Your task to perform on an android device: open app "Life360: Find Family & Friends" Image 0: 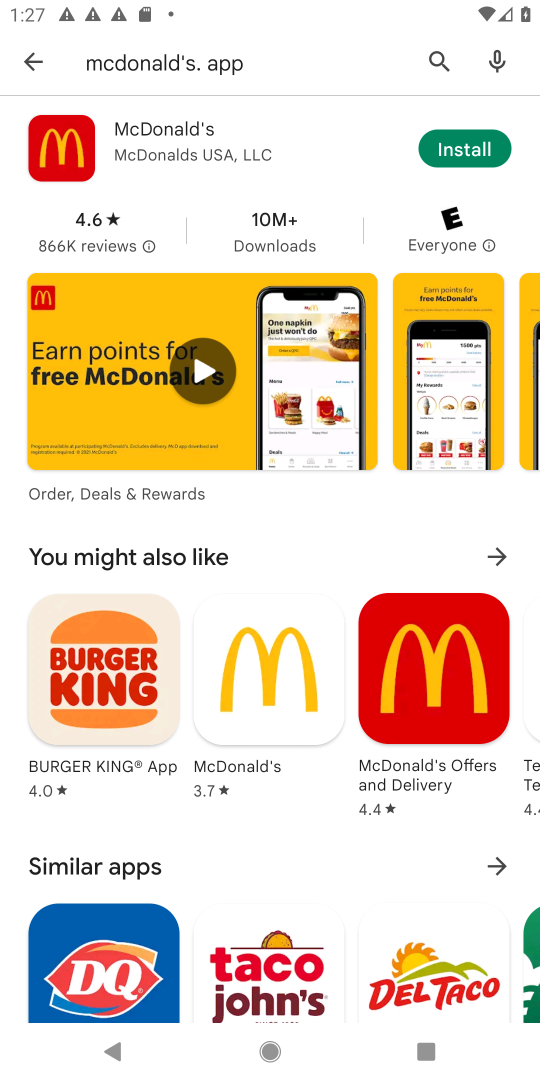
Step 0: press home button
Your task to perform on an android device: open app "Life360: Find Family & Friends" Image 1: 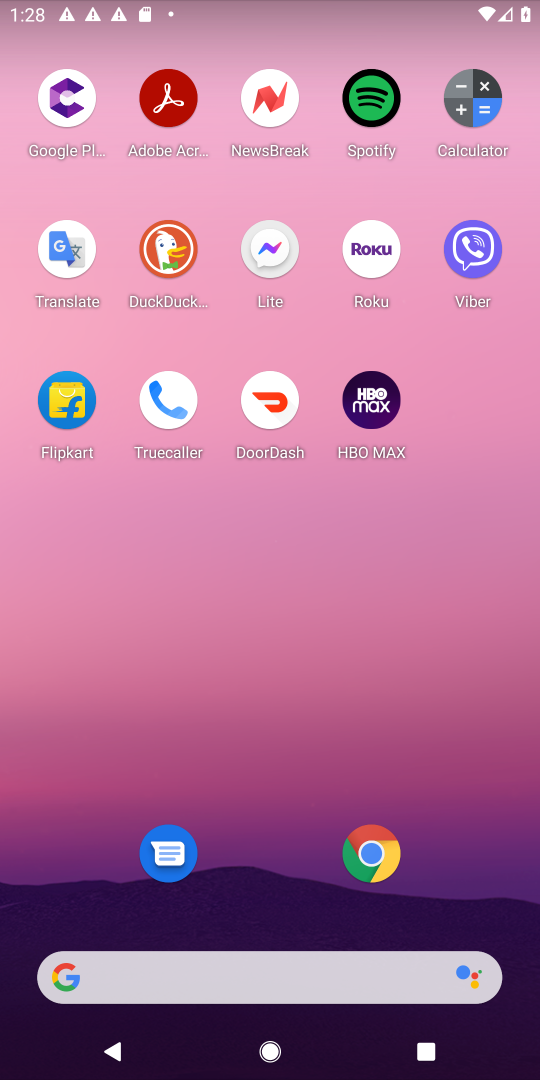
Step 1: drag from (355, 727) to (440, 251)
Your task to perform on an android device: open app "Life360: Find Family & Friends" Image 2: 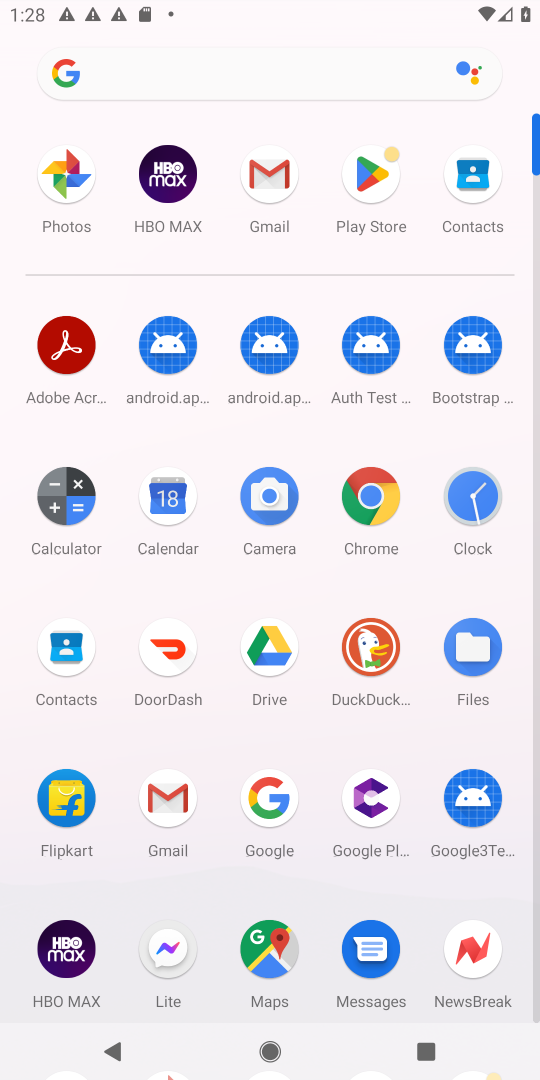
Step 2: click (388, 201)
Your task to perform on an android device: open app "Life360: Find Family & Friends" Image 3: 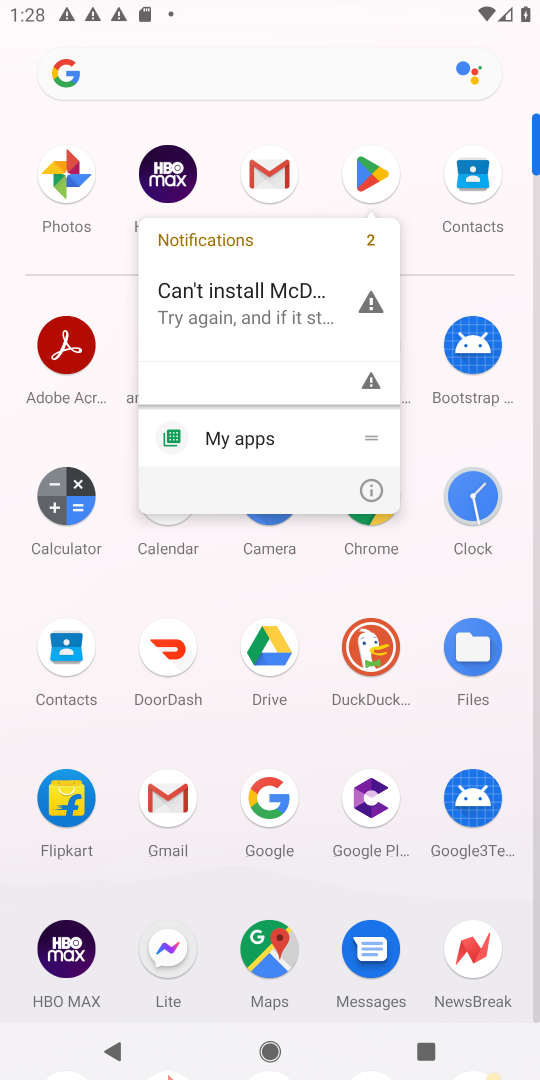
Step 3: click (377, 175)
Your task to perform on an android device: open app "Life360: Find Family & Friends" Image 4: 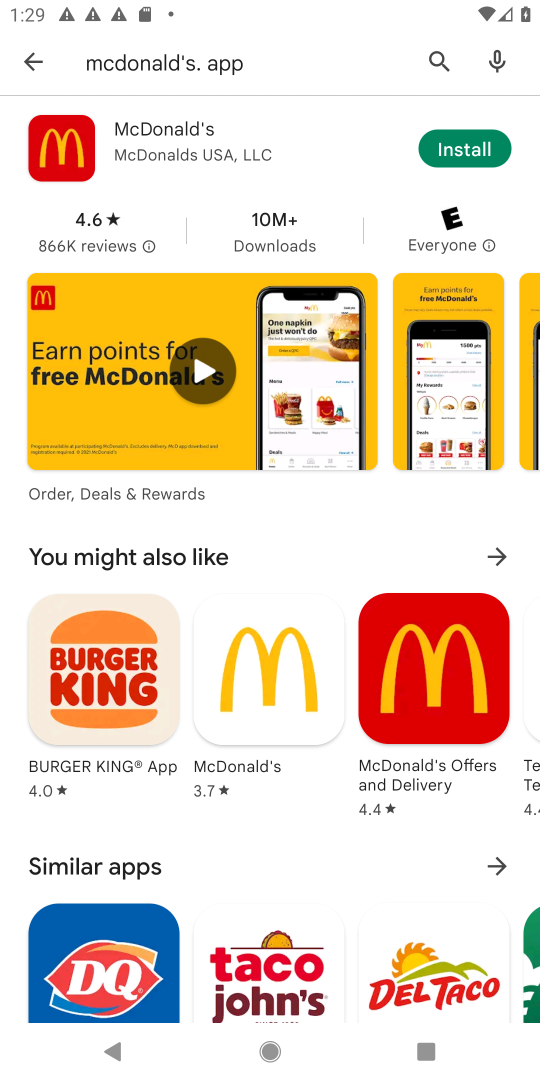
Step 4: click (37, 56)
Your task to perform on an android device: open app "Life360: Find Family & Friends" Image 5: 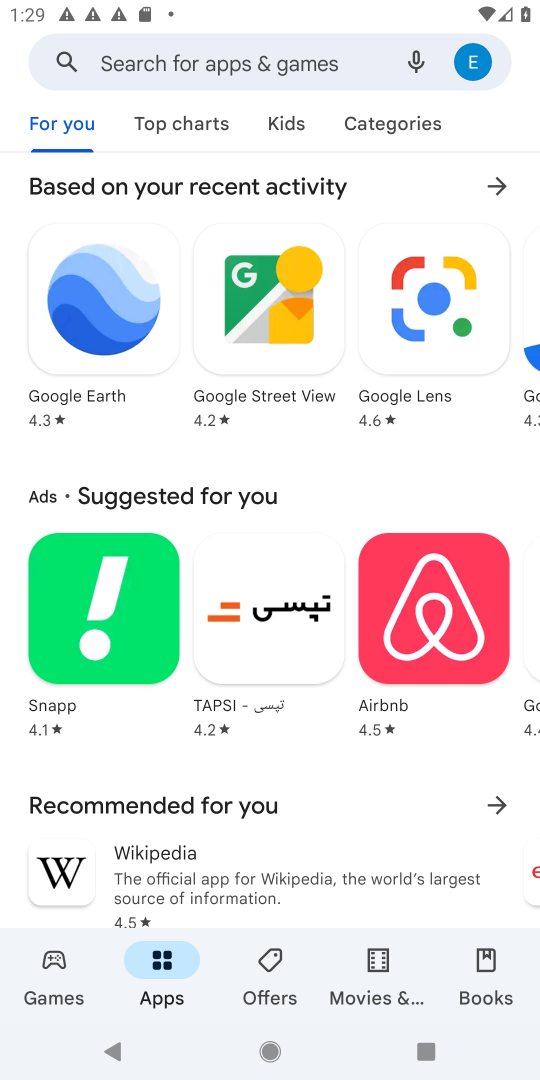
Step 5: click (218, 76)
Your task to perform on an android device: open app "Life360: Find Family & Friends" Image 6: 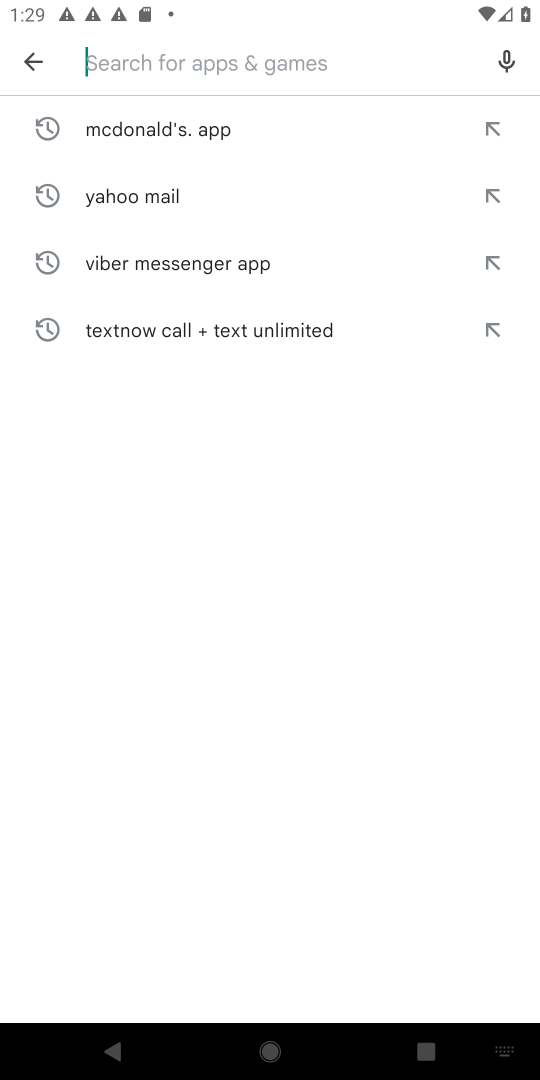
Step 6: click (25, 67)
Your task to perform on an android device: open app "Life360: Find Family & Friends" Image 7: 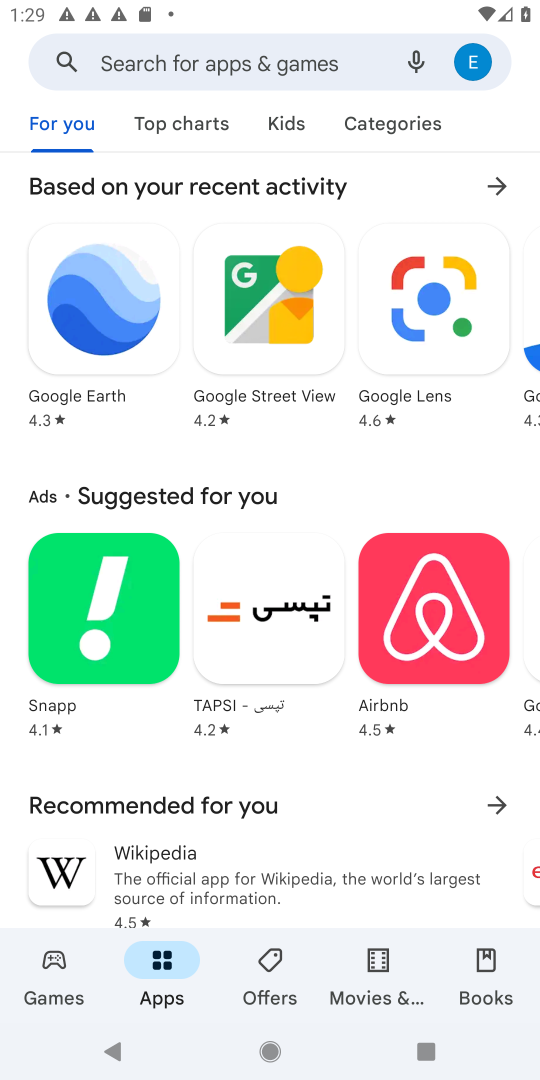
Step 7: click (329, 57)
Your task to perform on an android device: open app "Life360: Find Family & Friends" Image 8: 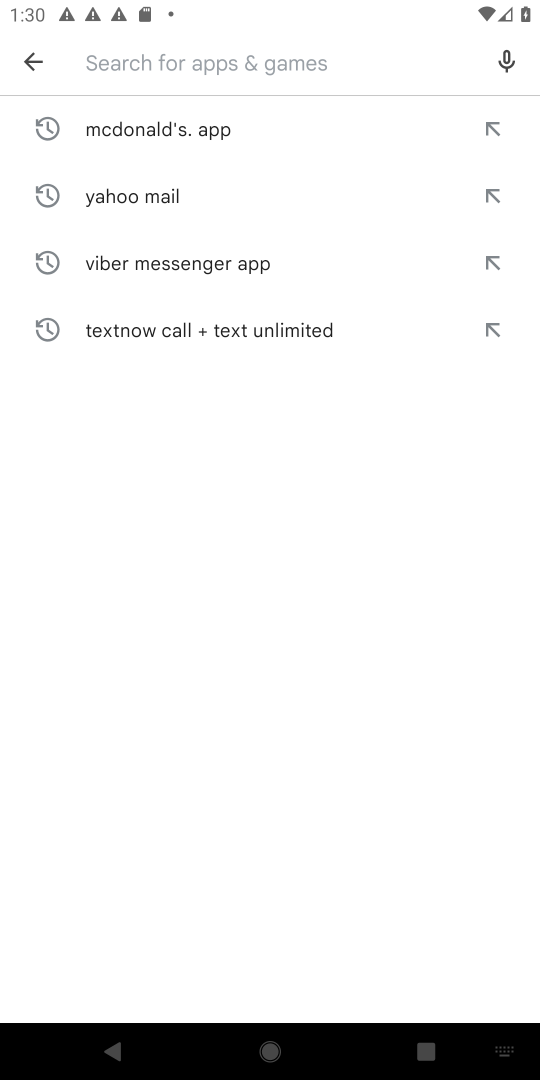
Step 8: type "Life360: Find Family & Friends"
Your task to perform on an android device: open app "Life360: Find Family & Friends" Image 9: 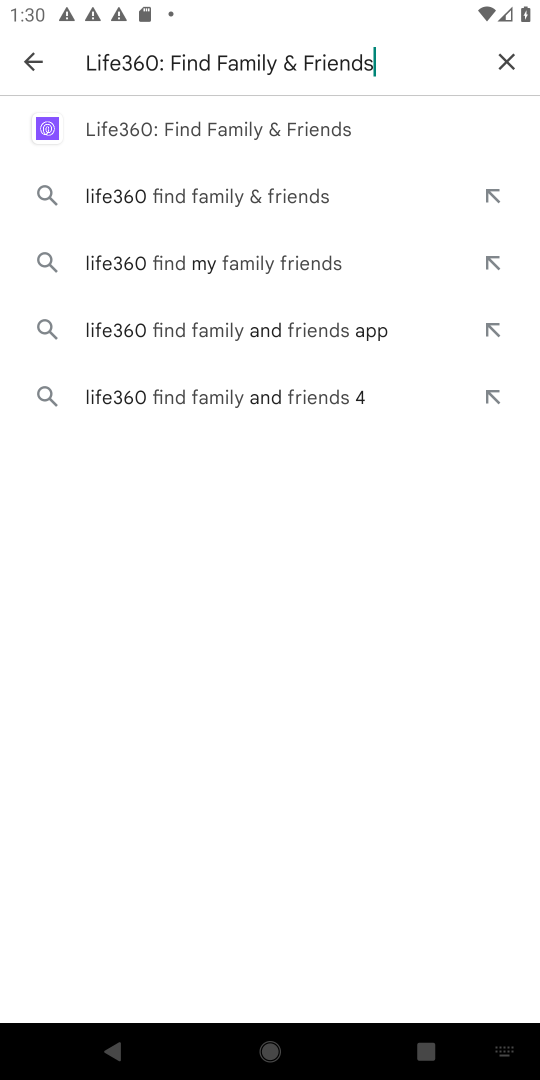
Step 9: click (175, 135)
Your task to perform on an android device: open app "Life360: Find Family & Friends" Image 10: 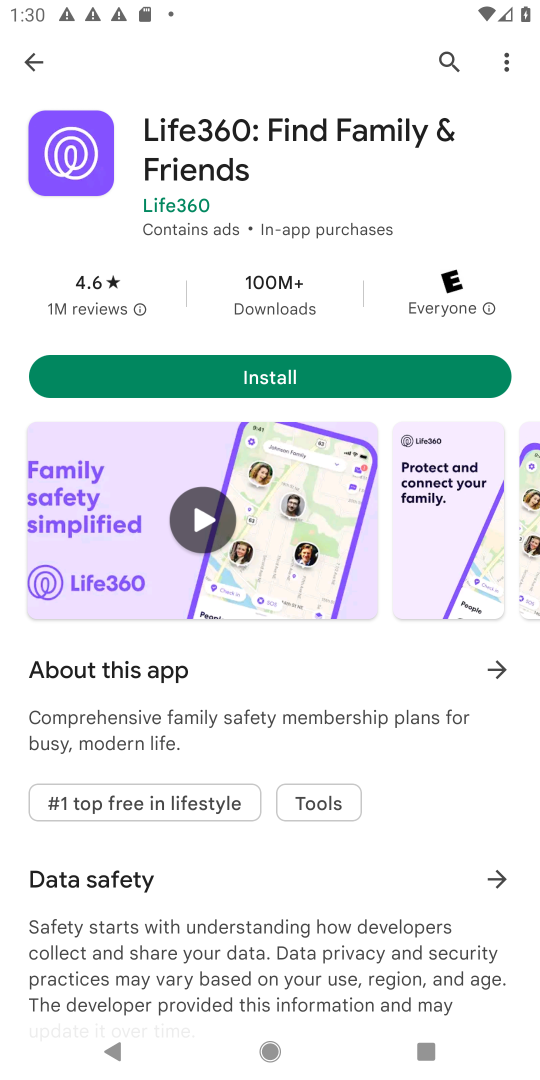
Step 10: click (259, 378)
Your task to perform on an android device: open app "Life360: Find Family & Friends" Image 11: 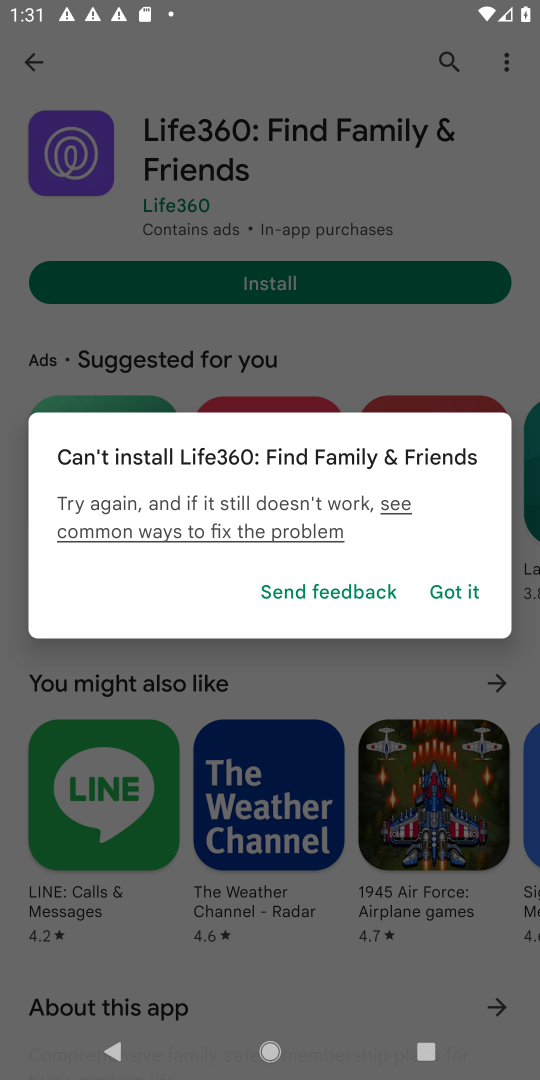
Step 11: click (446, 598)
Your task to perform on an android device: open app "Life360: Find Family & Friends" Image 12: 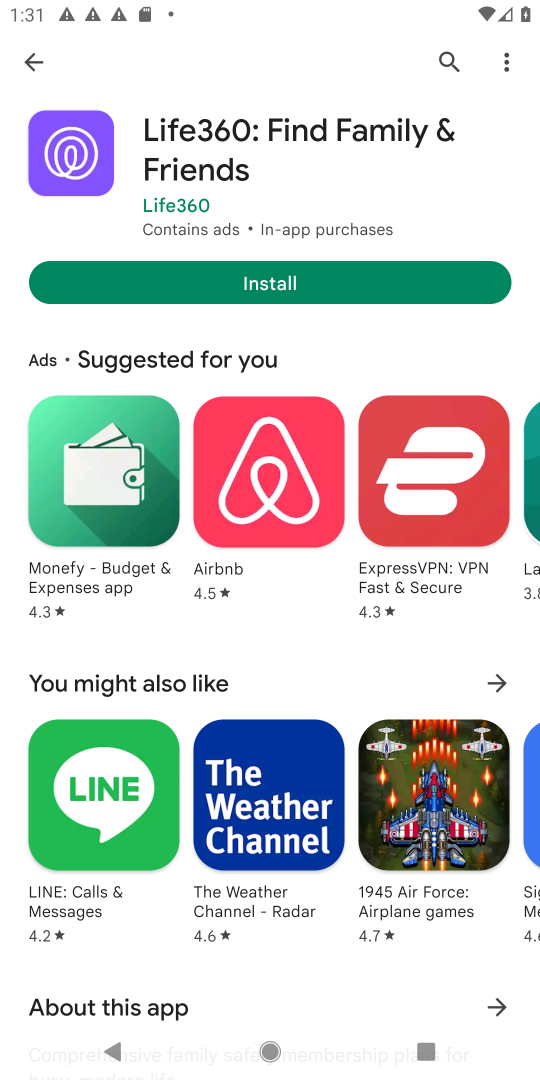
Step 12: click (403, 291)
Your task to perform on an android device: open app "Life360: Find Family & Friends" Image 13: 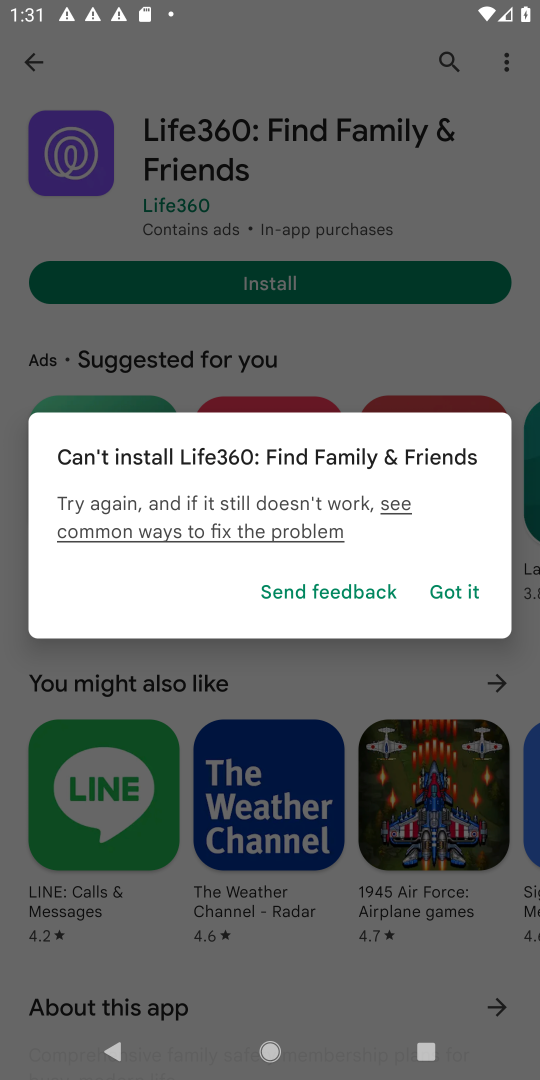
Step 13: task complete